Your task to perform on an android device: uninstall "Walmart Shopping & Grocery" Image 0: 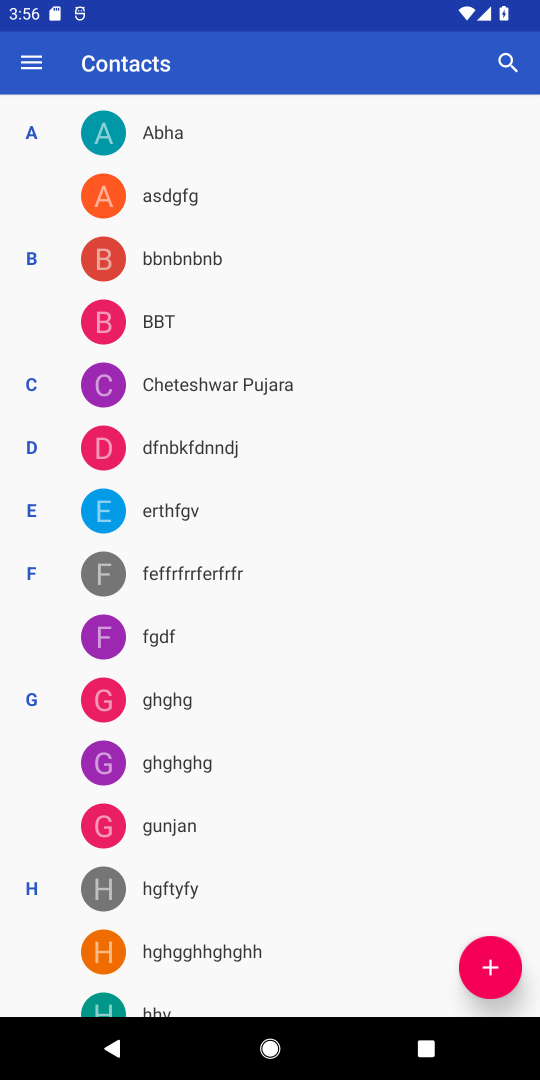
Step 0: press home button
Your task to perform on an android device: uninstall "Walmart Shopping & Grocery" Image 1: 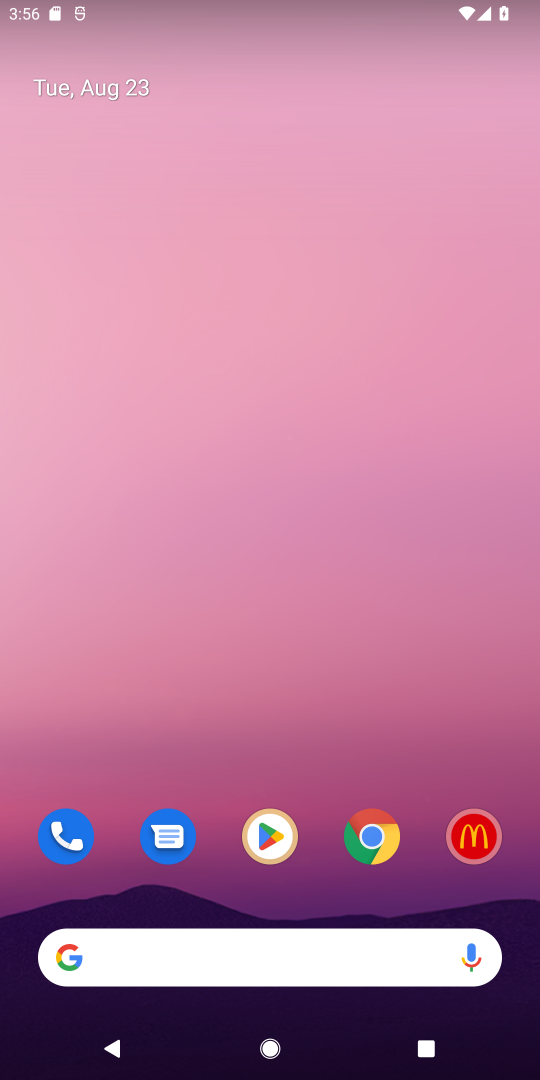
Step 1: click (270, 832)
Your task to perform on an android device: uninstall "Walmart Shopping & Grocery" Image 2: 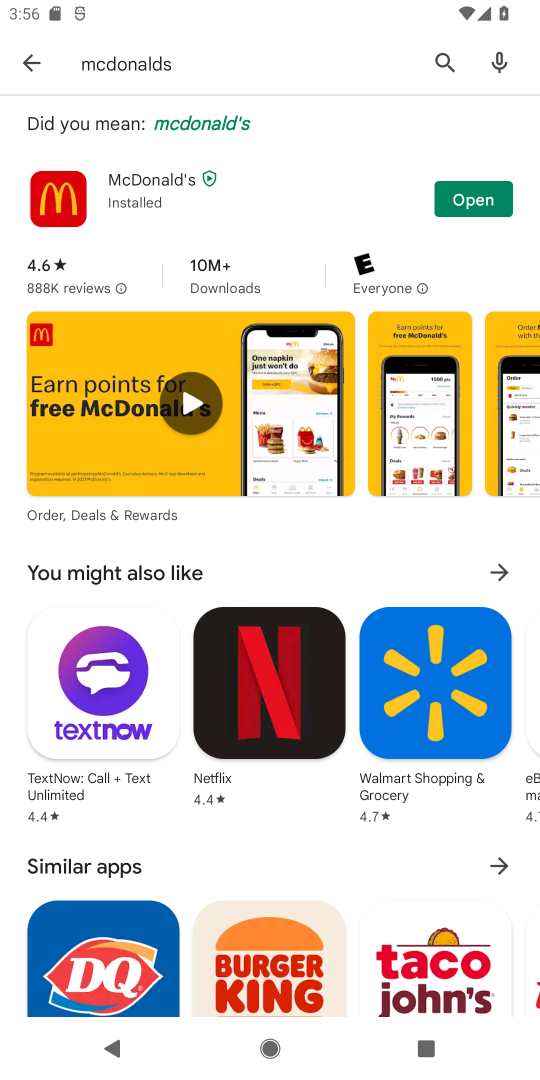
Step 2: click (446, 51)
Your task to perform on an android device: uninstall "Walmart Shopping & Grocery" Image 3: 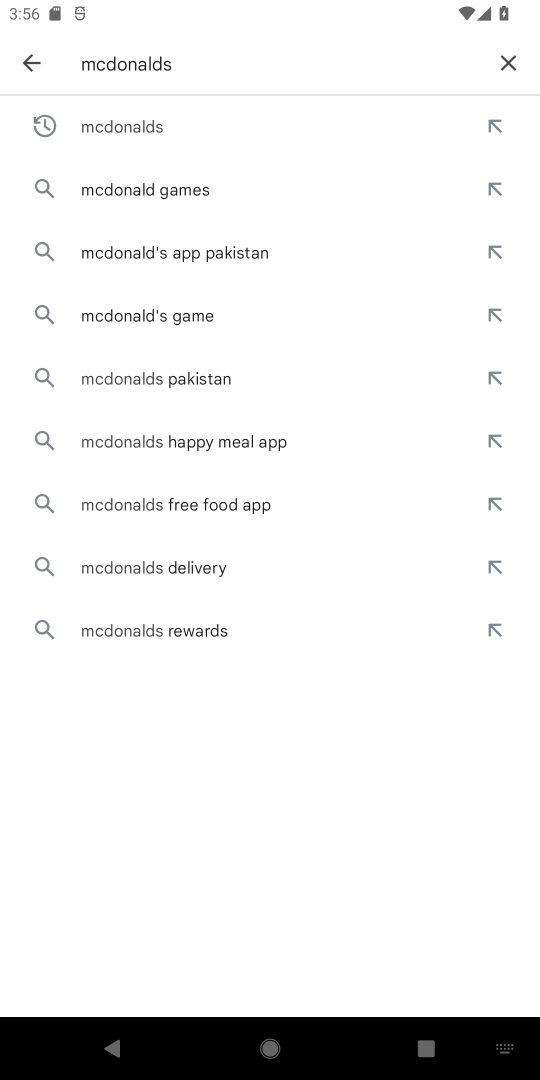
Step 3: click (511, 61)
Your task to perform on an android device: uninstall "Walmart Shopping & Grocery" Image 4: 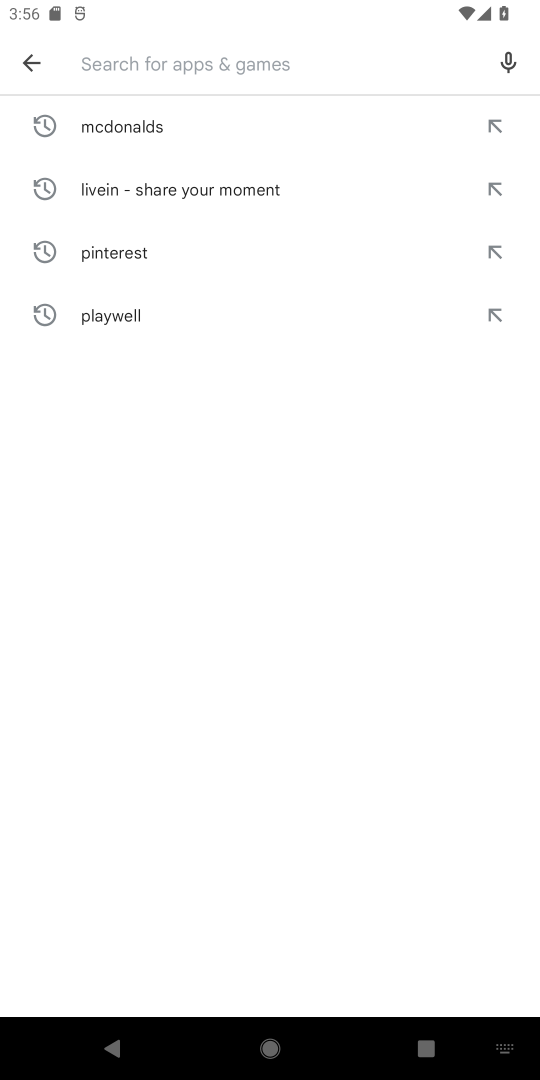
Step 4: type "Walmart Shopping & Grocery"
Your task to perform on an android device: uninstall "Walmart Shopping & Grocery" Image 5: 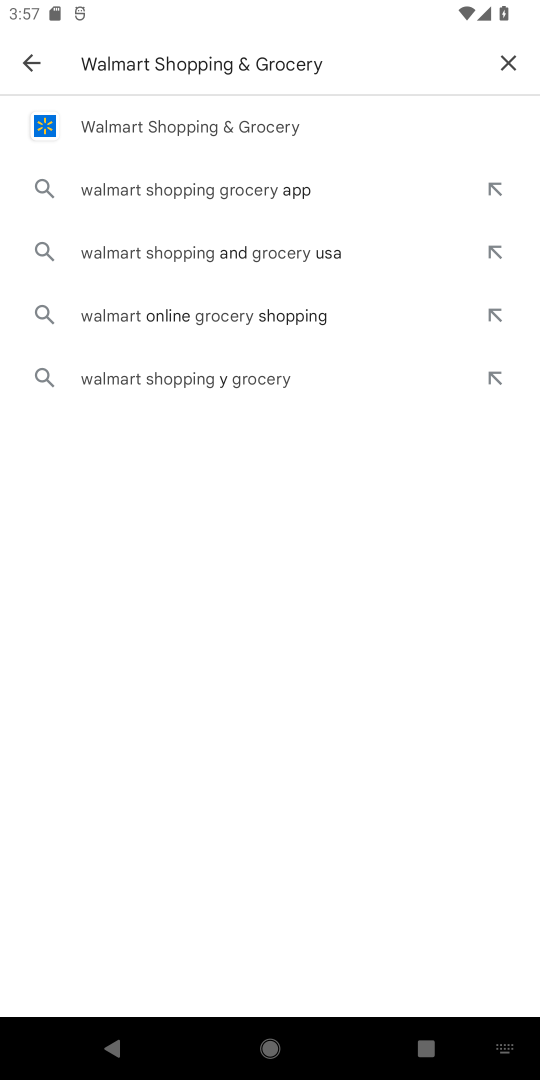
Step 5: click (116, 124)
Your task to perform on an android device: uninstall "Walmart Shopping & Grocery" Image 6: 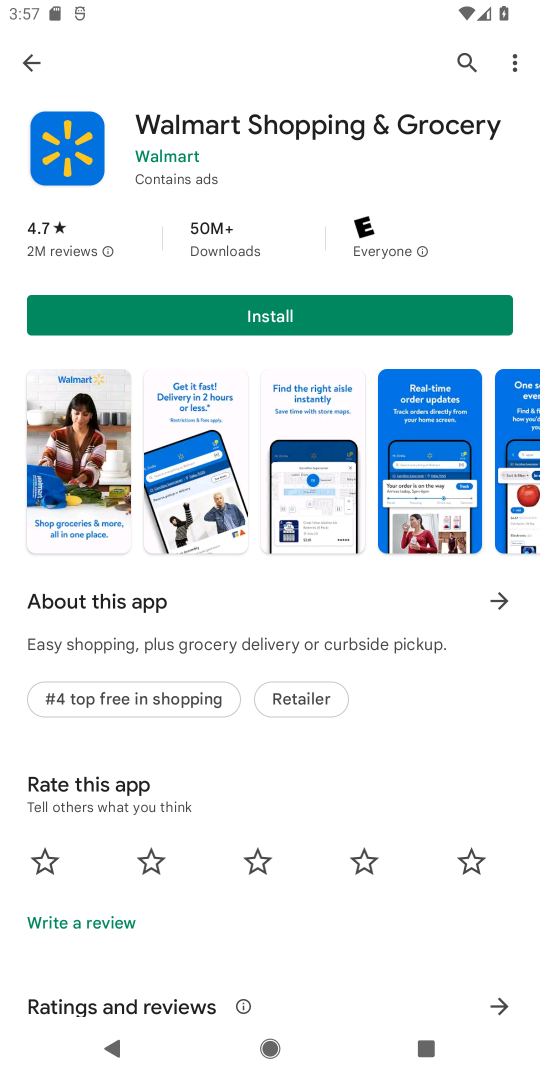
Step 6: task complete